Your task to perform on an android device: change the clock display to digital Image 0: 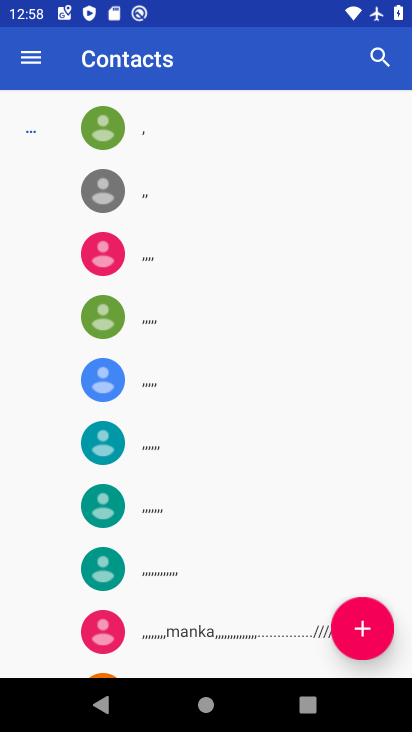
Step 0: press home button
Your task to perform on an android device: change the clock display to digital Image 1: 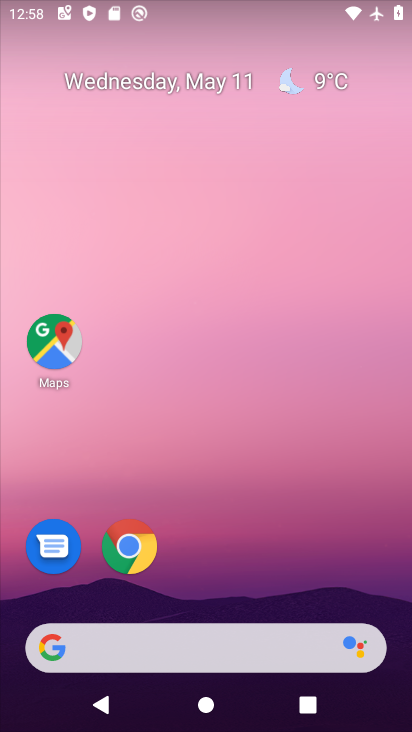
Step 1: drag from (210, 613) to (200, 6)
Your task to perform on an android device: change the clock display to digital Image 2: 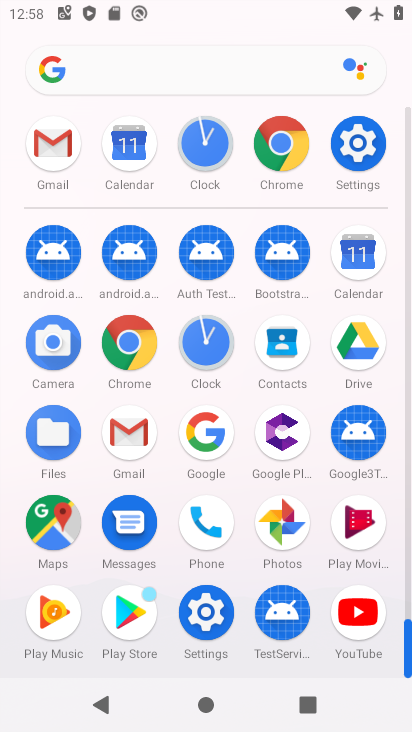
Step 2: click (212, 352)
Your task to perform on an android device: change the clock display to digital Image 3: 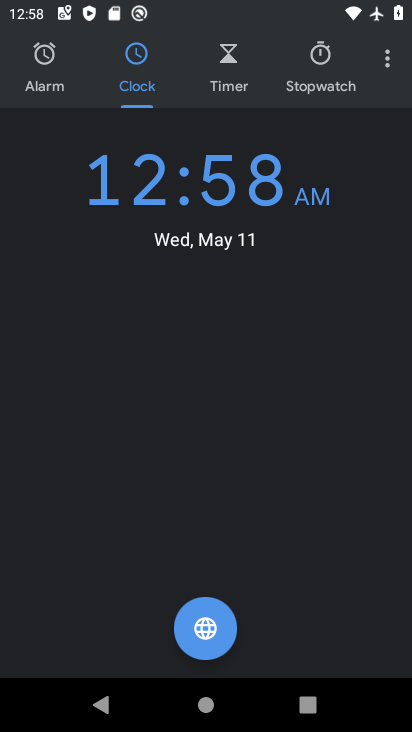
Step 3: click (393, 67)
Your task to perform on an android device: change the clock display to digital Image 4: 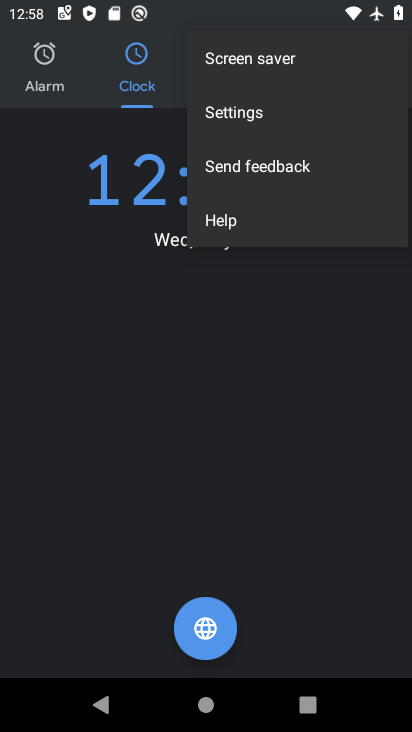
Step 4: click (258, 112)
Your task to perform on an android device: change the clock display to digital Image 5: 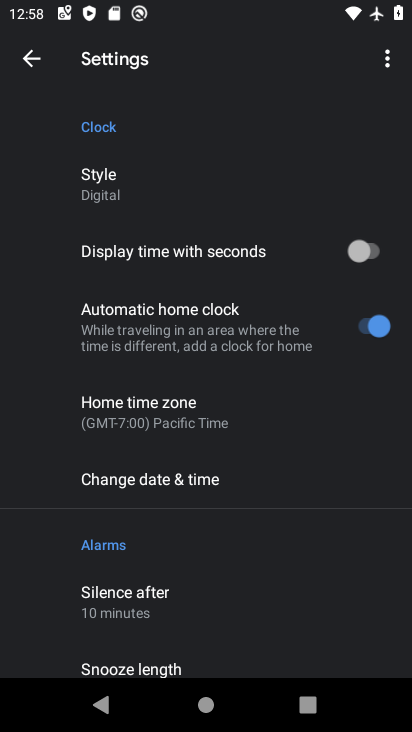
Step 5: task complete